Your task to perform on an android device: Open the web browser Image 0: 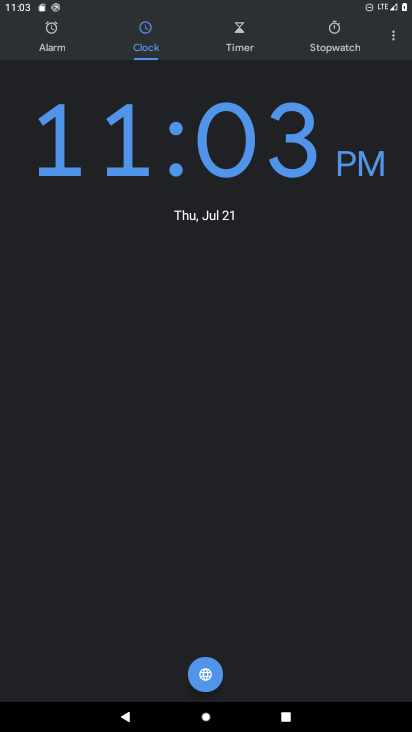
Step 0: press home button
Your task to perform on an android device: Open the web browser Image 1: 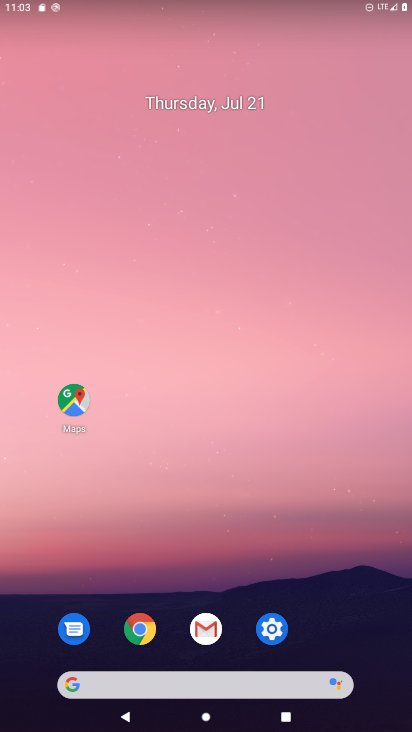
Step 1: click (152, 626)
Your task to perform on an android device: Open the web browser Image 2: 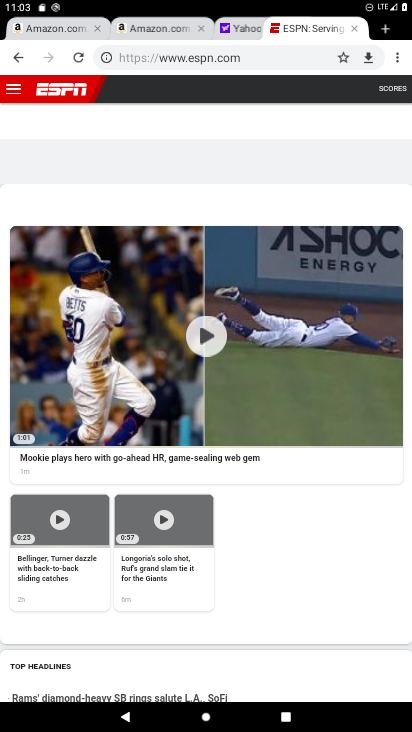
Step 2: click (208, 52)
Your task to perform on an android device: Open the web browser Image 3: 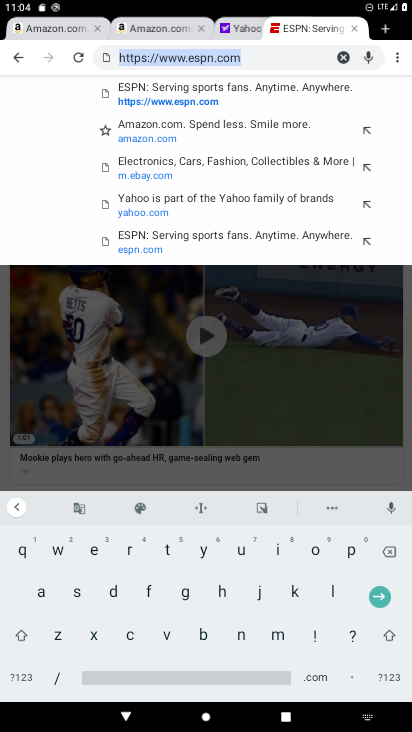
Step 3: click (344, 59)
Your task to perform on an android device: Open the web browser Image 4: 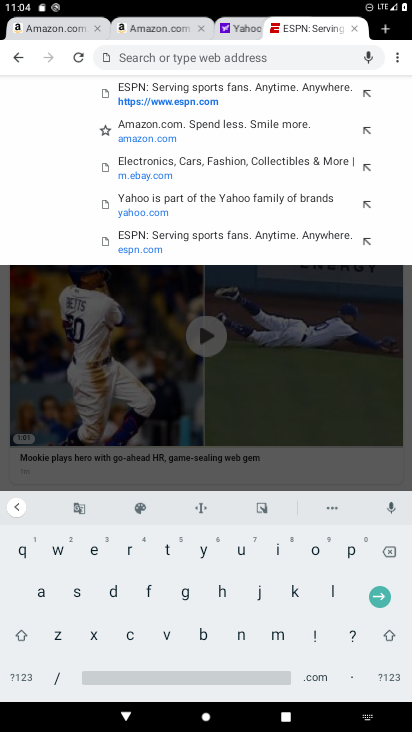
Step 4: click (252, 58)
Your task to perform on an android device: Open the web browser Image 5: 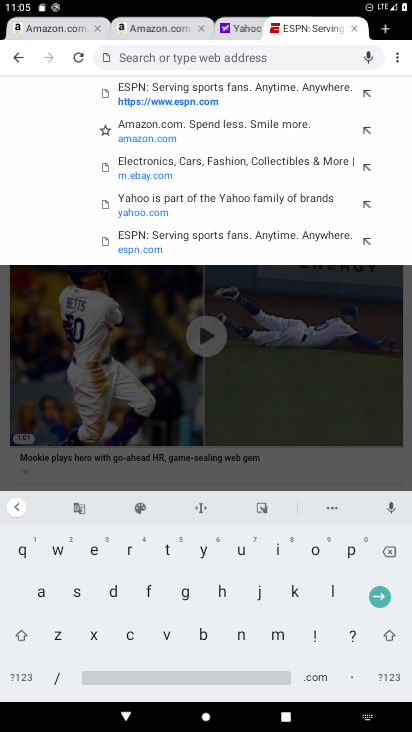
Step 5: task complete